Your task to perform on an android device: change keyboard looks Image 0: 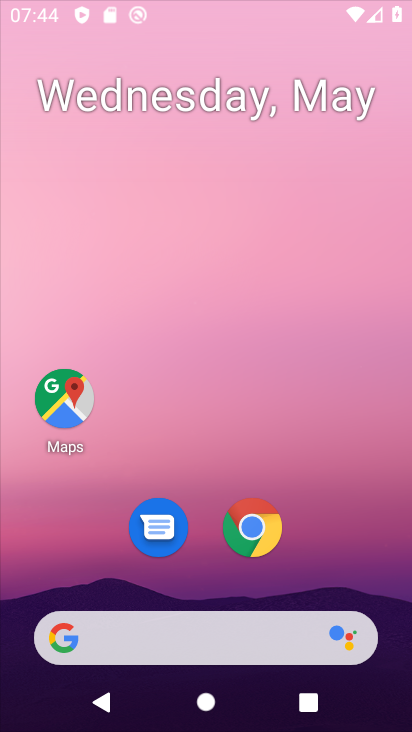
Step 0: press home button
Your task to perform on an android device: change keyboard looks Image 1: 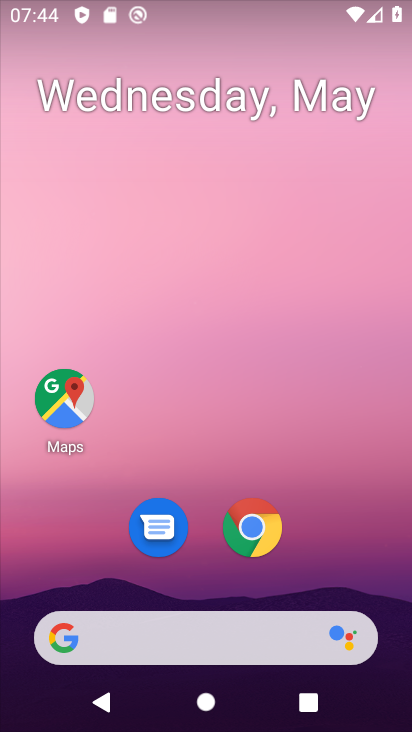
Step 1: drag from (373, 545) to (347, 37)
Your task to perform on an android device: change keyboard looks Image 2: 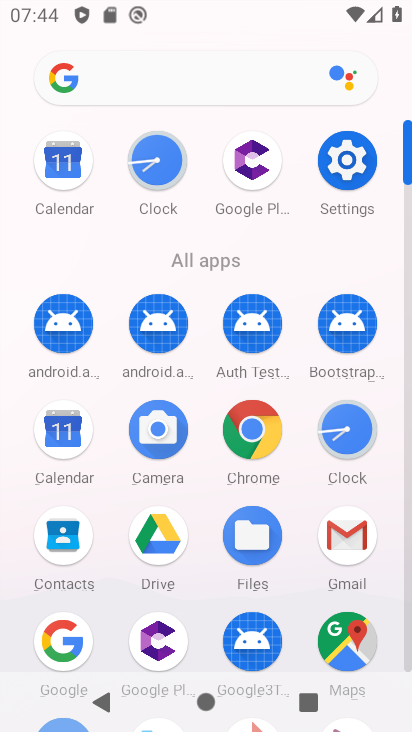
Step 2: click (346, 157)
Your task to perform on an android device: change keyboard looks Image 3: 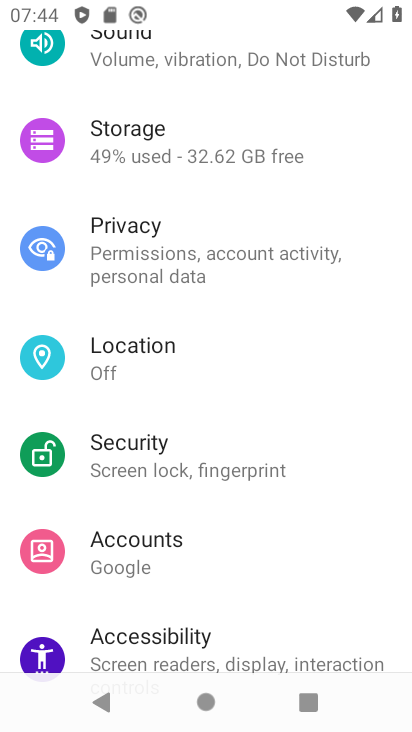
Step 3: drag from (208, 580) to (192, 159)
Your task to perform on an android device: change keyboard looks Image 4: 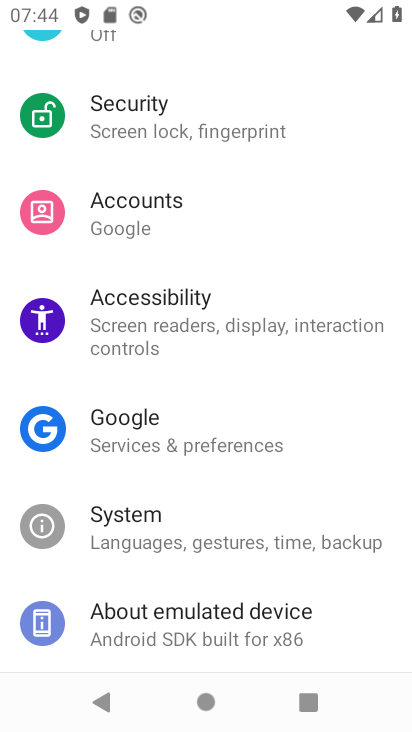
Step 4: click (178, 519)
Your task to perform on an android device: change keyboard looks Image 5: 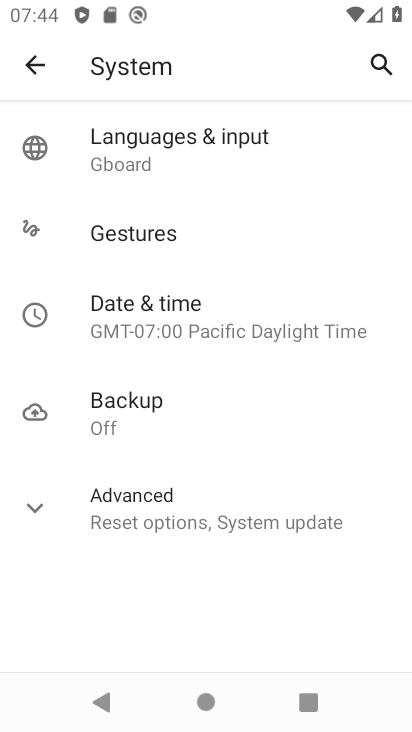
Step 5: click (197, 151)
Your task to perform on an android device: change keyboard looks Image 6: 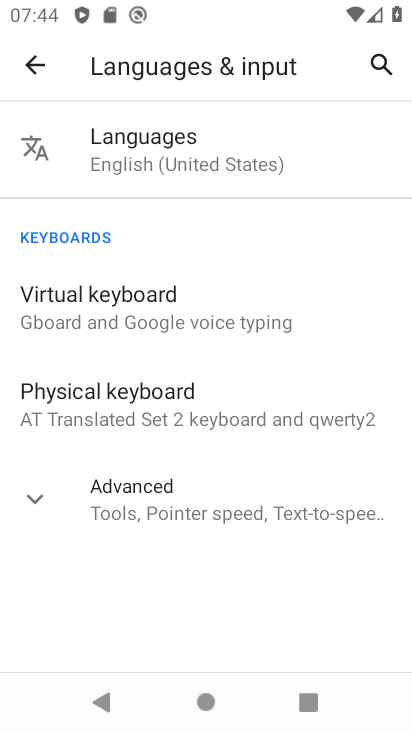
Step 6: click (172, 287)
Your task to perform on an android device: change keyboard looks Image 7: 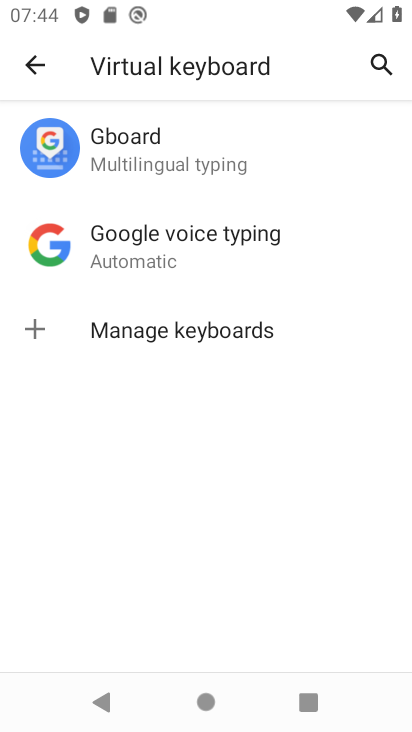
Step 7: click (112, 150)
Your task to perform on an android device: change keyboard looks Image 8: 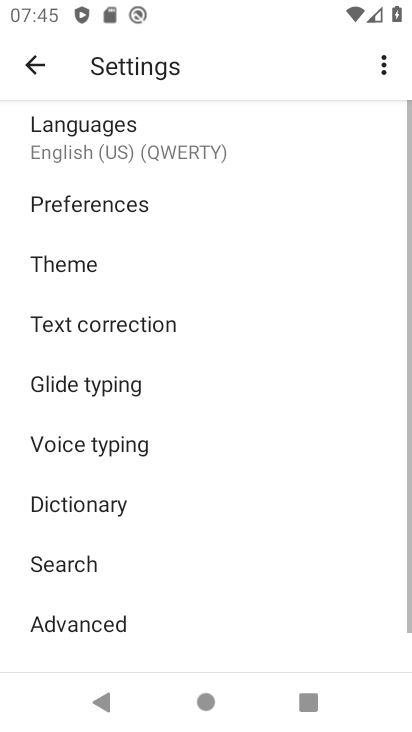
Step 8: click (138, 277)
Your task to perform on an android device: change keyboard looks Image 9: 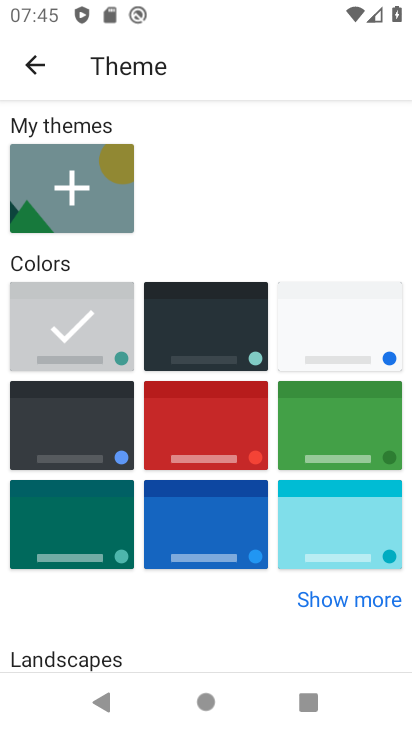
Step 9: click (259, 516)
Your task to perform on an android device: change keyboard looks Image 10: 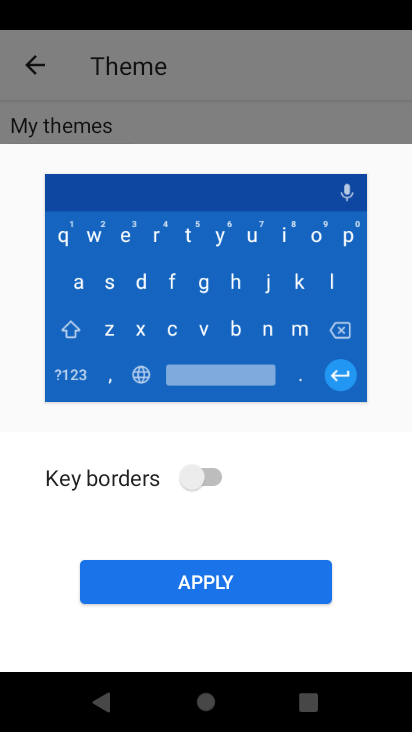
Step 10: click (223, 598)
Your task to perform on an android device: change keyboard looks Image 11: 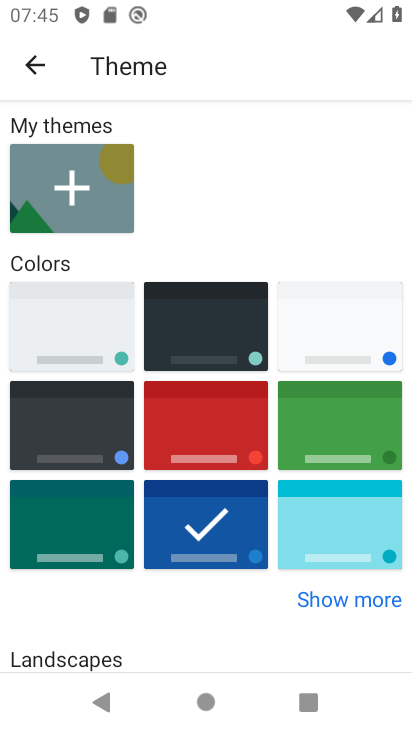
Step 11: task complete